Your task to perform on an android device: Go to display settings Image 0: 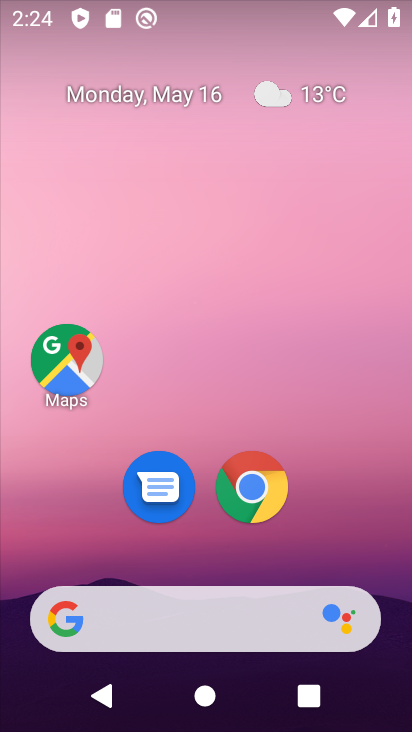
Step 0: drag from (312, 482) to (77, 78)
Your task to perform on an android device: Go to display settings Image 1: 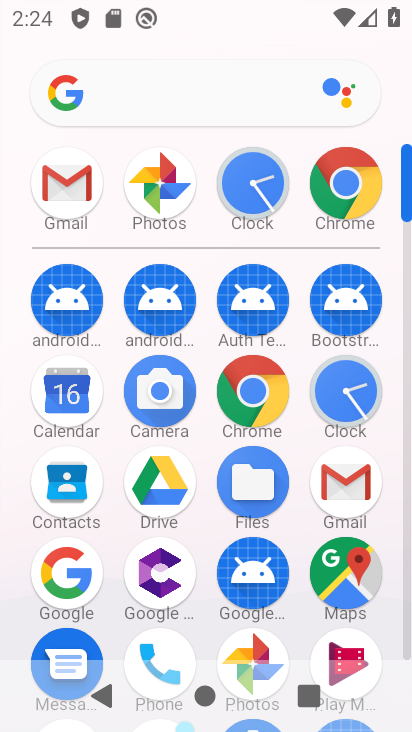
Step 1: drag from (195, 590) to (211, 311)
Your task to perform on an android device: Go to display settings Image 2: 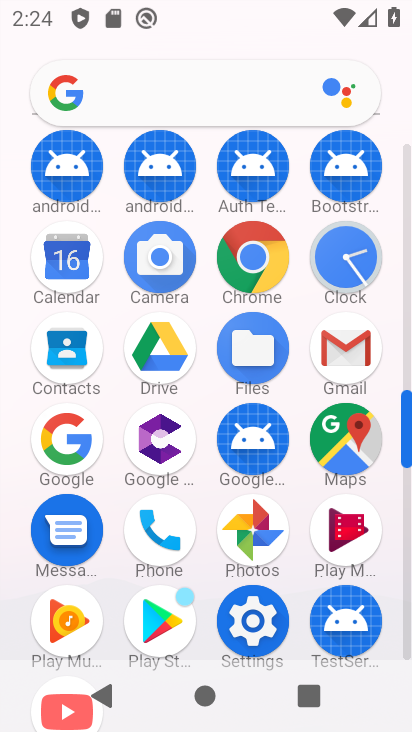
Step 2: drag from (211, 205) to (211, 157)
Your task to perform on an android device: Go to display settings Image 3: 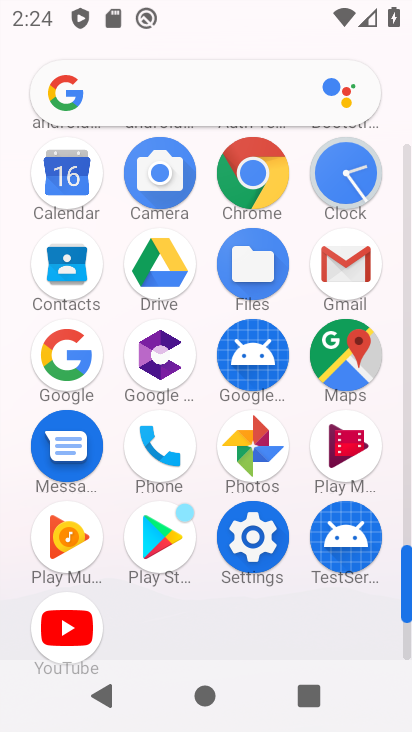
Step 3: click (243, 554)
Your task to perform on an android device: Go to display settings Image 4: 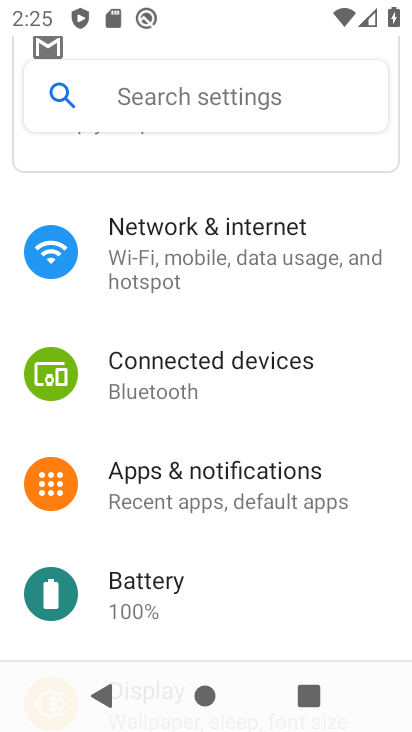
Step 4: drag from (159, 526) to (160, 215)
Your task to perform on an android device: Go to display settings Image 5: 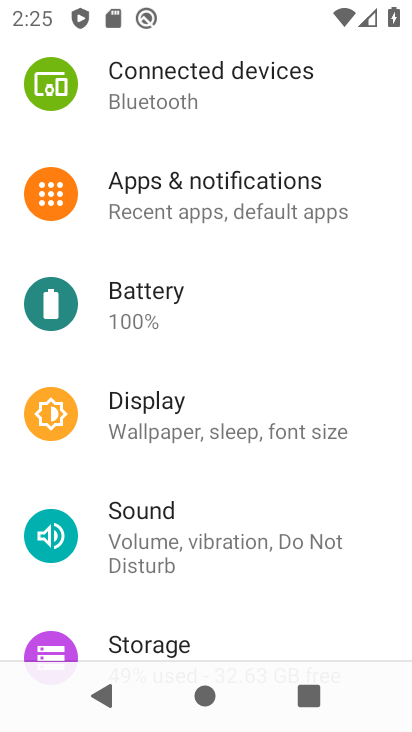
Step 5: click (204, 403)
Your task to perform on an android device: Go to display settings Image 6: 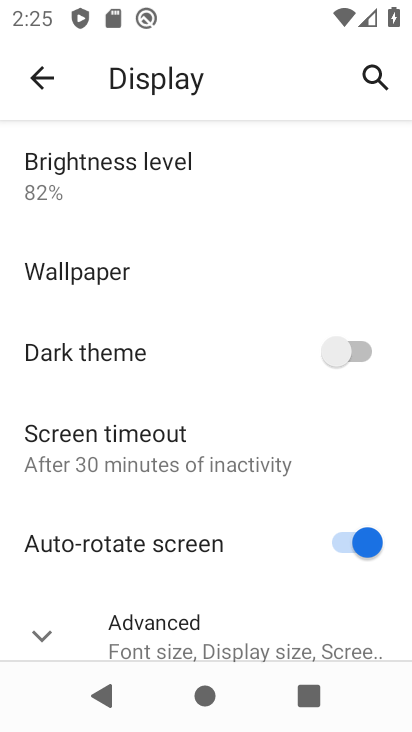
Step 6: drag from (136, 573) to (131, 219)
Your task to perform on an android device: Go to display settings Image 7: 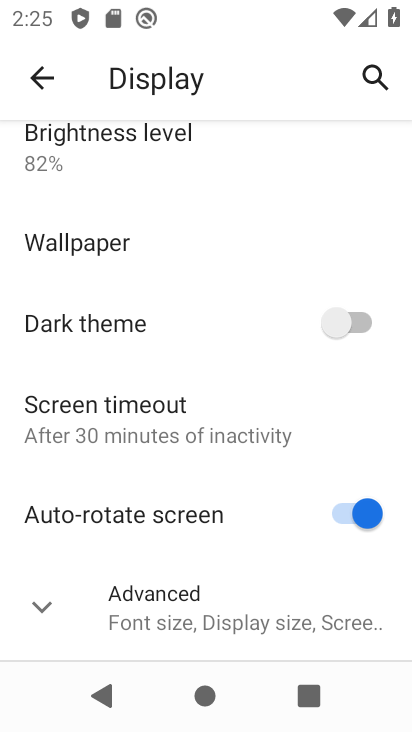
Step 7: click (188, 633)
Your task to perform on an android device: Go to display settings Image 8: 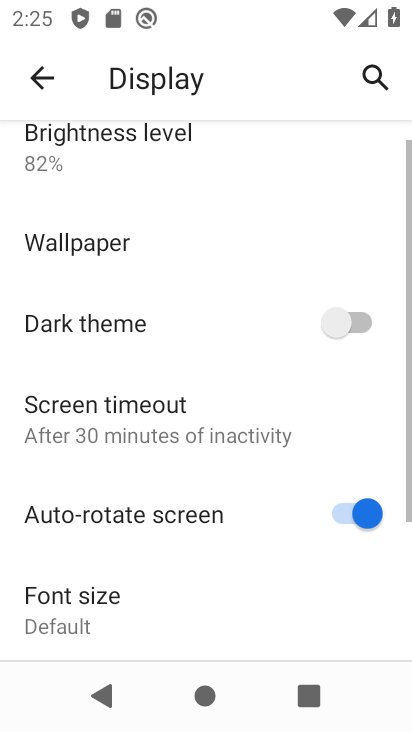
Step 8: task complete